Your task to perform on an android device: delete the emails in spam in the gmail app Image 0: 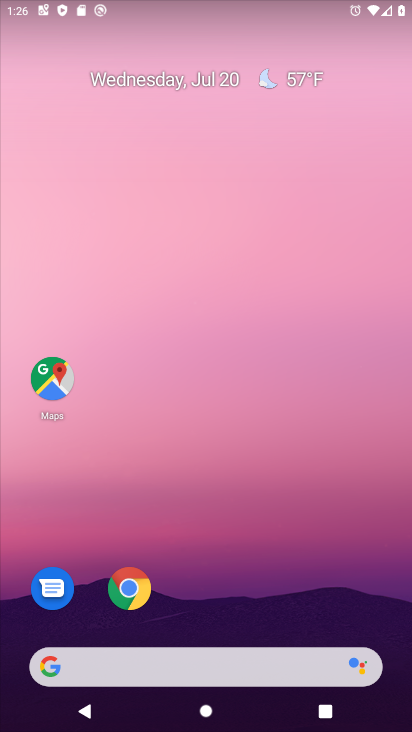
Step 0: press home button
Your task to perform on an android device: delete the emails in spam in the gmail app Image 1: 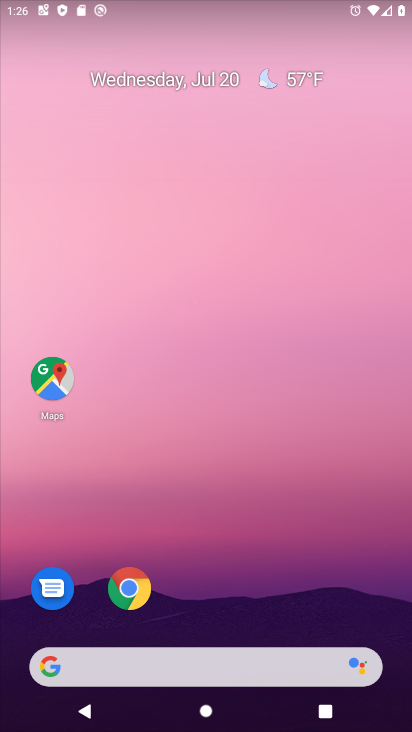
Step 1: drag from (15, 522) to (180, 130)
Your task to perform on an android device: delete the emails in spam in the gmail app Image 2: 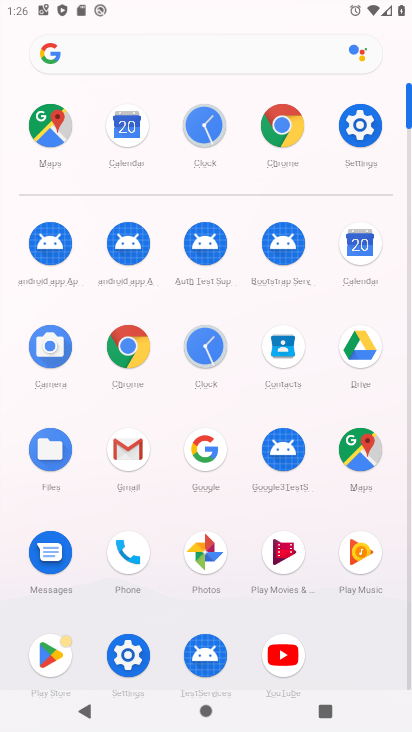
Step 2: click (115, 455)
Your task to perform on an android device: delete the emails in spam in the gmail app Image 3: 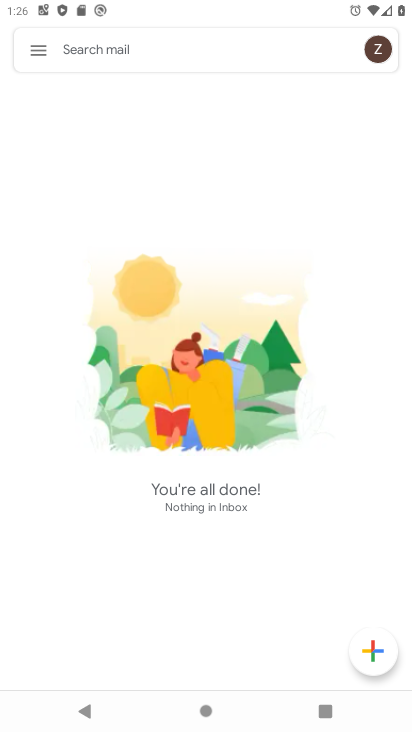
Step 3: click (31, 52)
Your task to perform on an android device: delete the emails in spam in the gmail app Image 4: 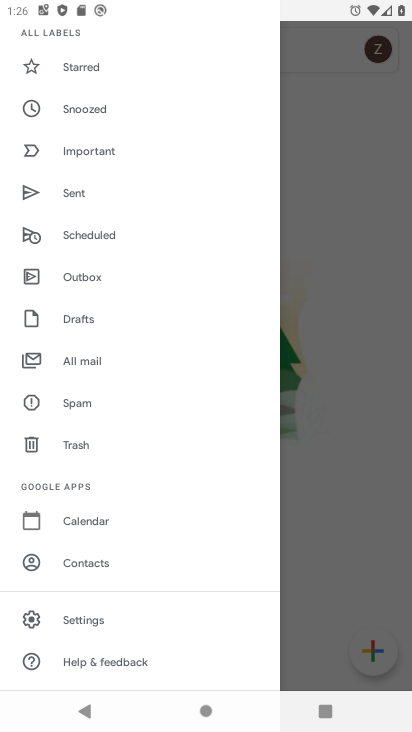
Step 4: click (45, 456)
Your task to perform on an android device: delete the emails in spam in the gmail app Image 5: 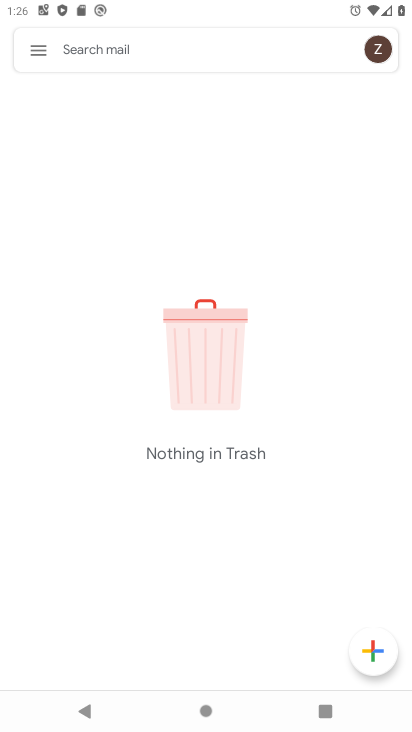
Step 5: press back button
Your task to perform on an android device: delete the emails in spam in the gmail app Image 6: 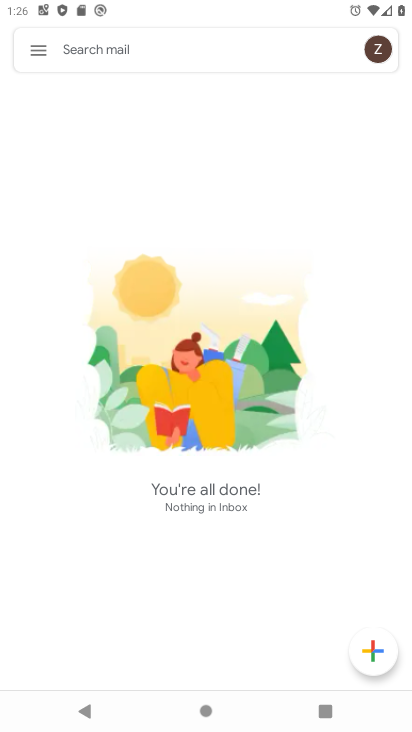
Step 6: click (26, 51)
Your task to perform on an android device: delete the emails in spam in the gmail app Image 7: 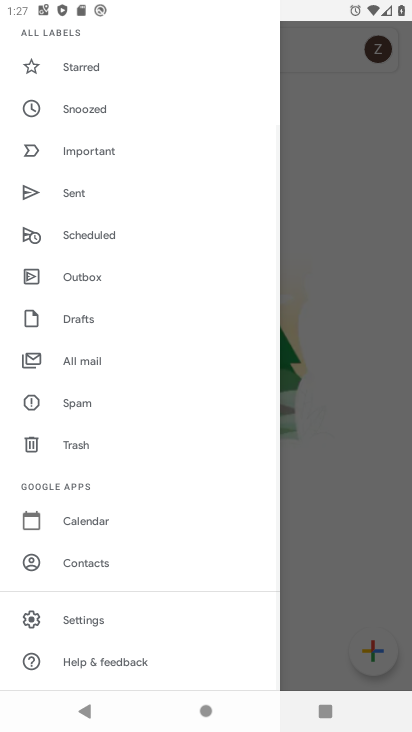
Step 7: click (77, 403)
Your task to perform on an android device: delete the emails in spam in the gmail app Image 8: 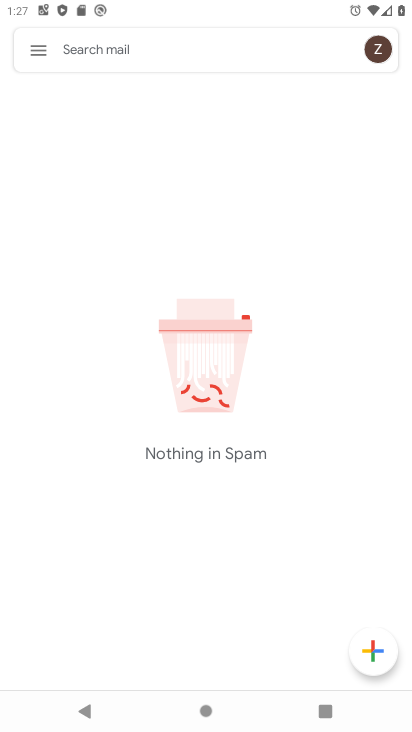
Step 8: task complete